Your task to perform on an android device: open a bookmark in the chrome app Image 0: 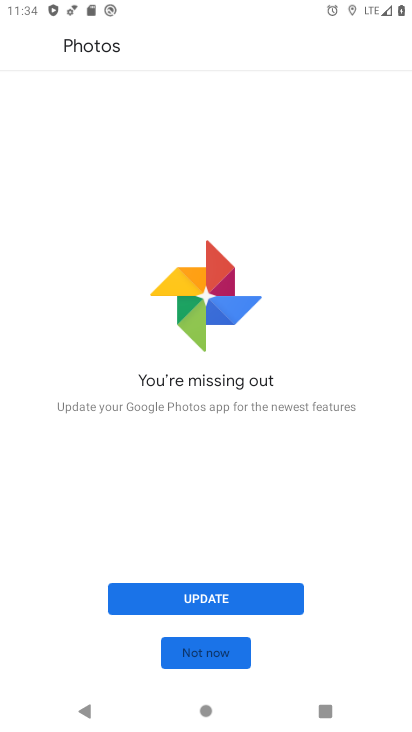
Step 0: press home button
Your task to perform on an android device: open a bookmark in the chrome app Image 1: 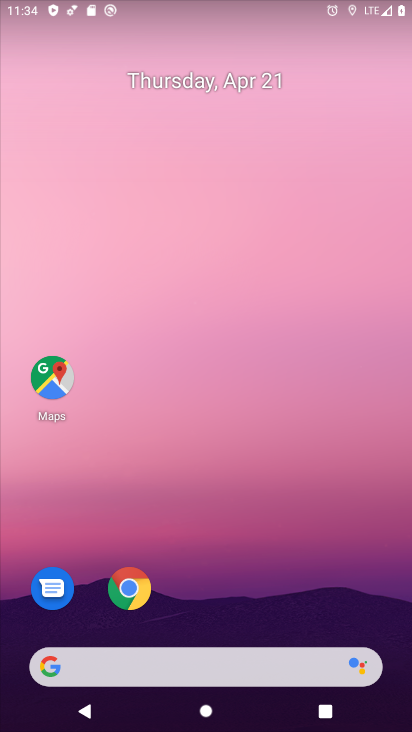
Step 1: drag from (283, 694) to (247, 223)
Your task to perform on an android device: open a bookmark in the chrome app Image 2: 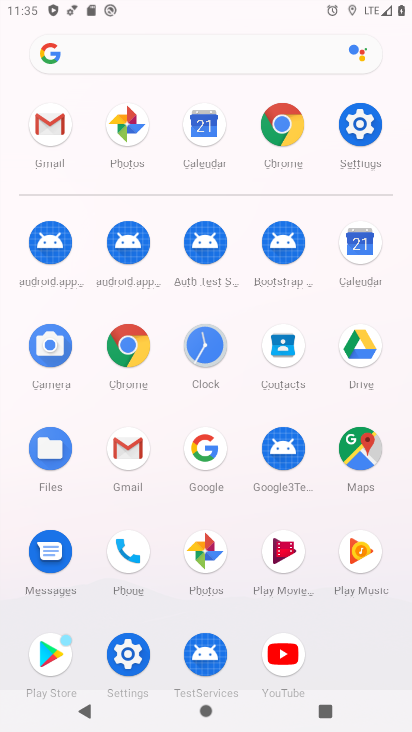
Step 2: click (298, 137)
Your task to perform on an android device: open a bookmark in the chrome app Image 3: 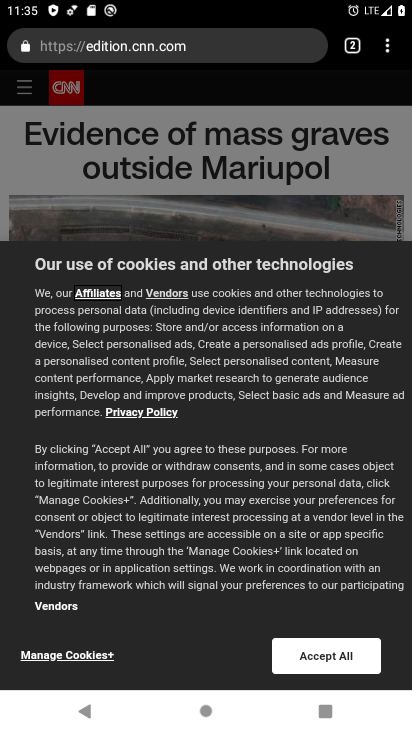
Step 3: click (380, 47)
Your task to perform on an android device: open a bookmark in the chrome app Image 4: 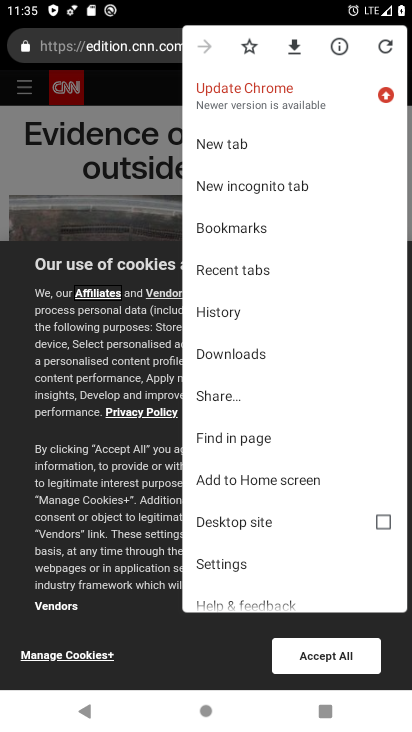
Step 4: click (256, 231)
Your task to perform on an android device: open a bookmark in the chrome app Image 5: 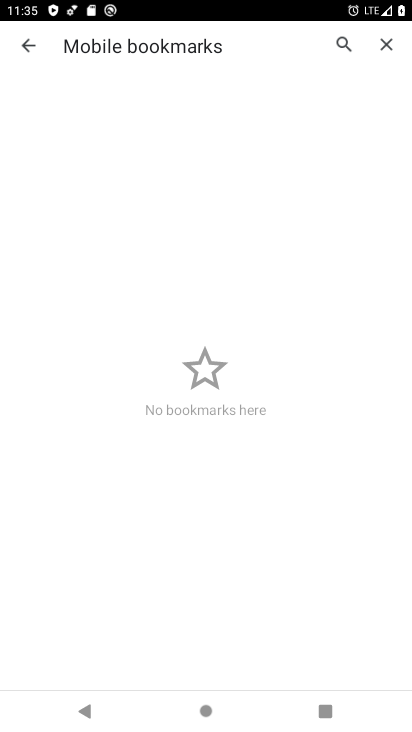
Step 5: task complete